Your task to perform on an android device: Search for vegetarian restaurants on Maps Image 0: 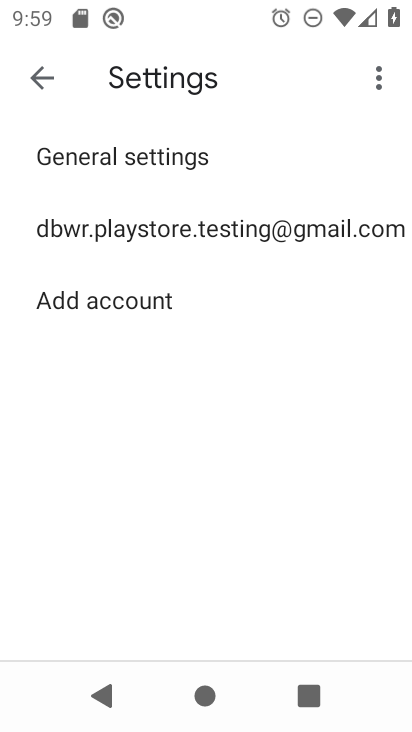
Step 0: press home button
Your task to perform on an android device: Search for vegetarian restaurants on Maps Image 1: 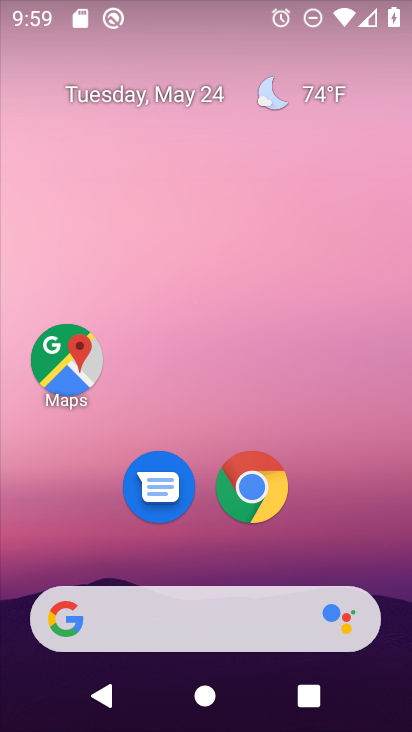
Step 1: click (71, 358)
Your task to perform on an android device: Search for vegetarian restaurants on Maps Image 2: 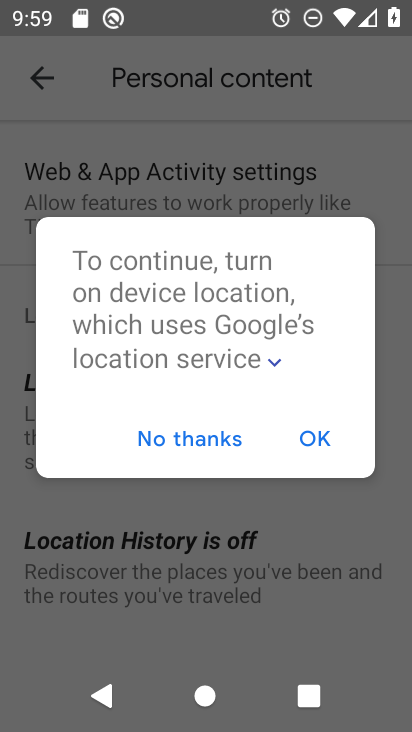
Step 2: click (202, 443)
Your task to perform on an android device: Search for vegetarian restaurants on Maps Image 3: 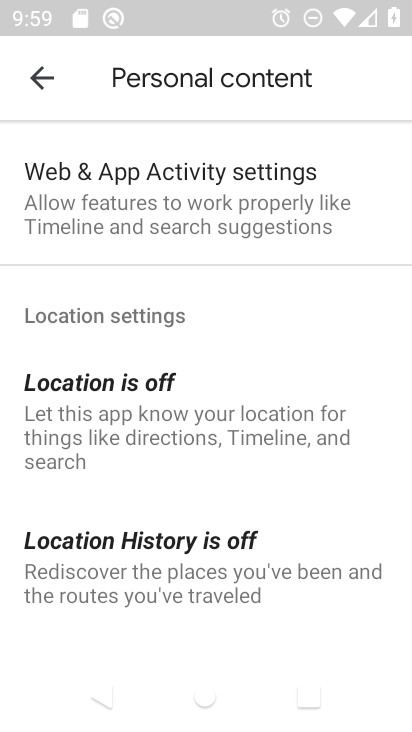
Step 3: click (40, 77)
Your task to perform on an android device: Search for vegetarian restaurants on Maps Image 4: 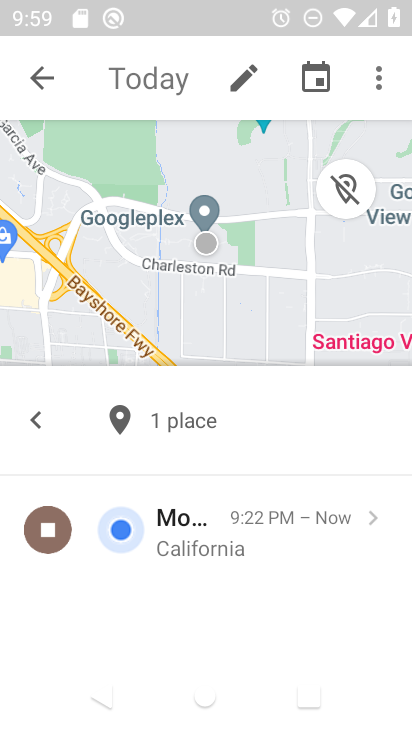
Step 4: click (39, 79)
Your task to perform on an android device: Search for vegetarian restaurants on Maps Image 5: 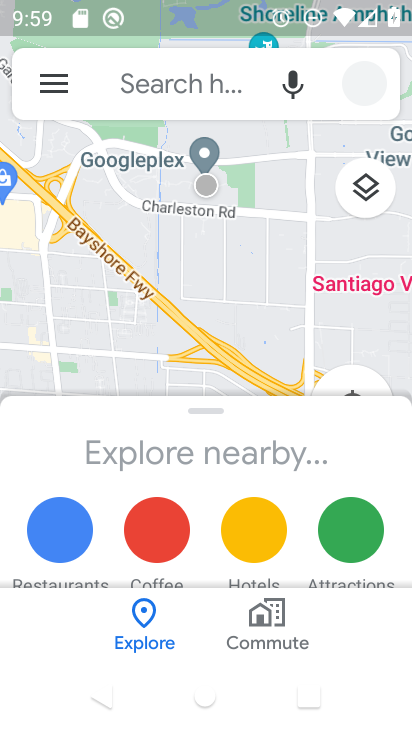
Step 5: click (129, 89)
Your task to perform on an android device: Search for vegetarian restaurants on Maps Image 6: 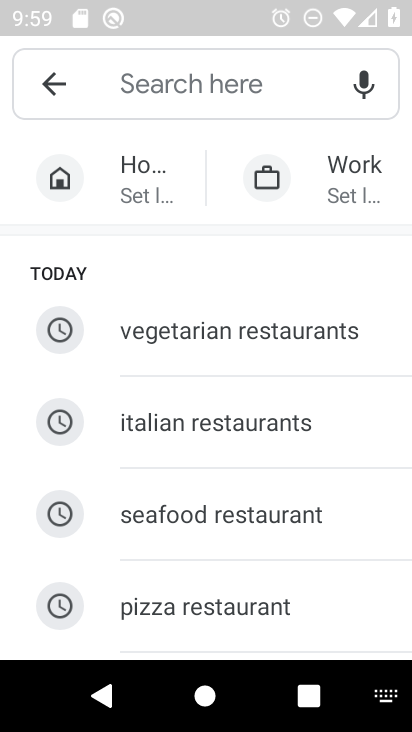
Step 6: type "vegetarian restaurants"
Your task to perform on an android device: Search for vegetarian restaurants on Maps Image 7: 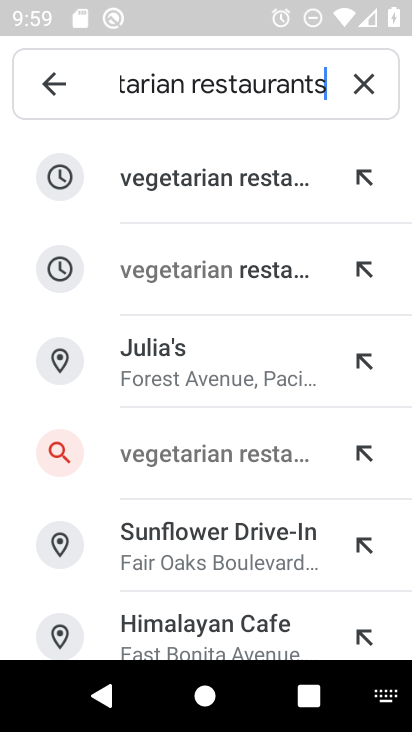
Step 7: click (191, 185)
Your task to perform on an android device: Search for vegetarian restaurants on Maps Image 8: 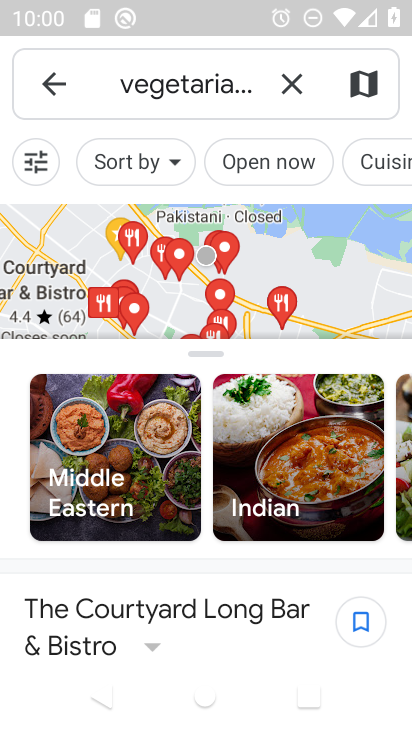
Step 8: task complete